Your task to perform on an android device: What's the weather going to be this weekend? Image 0: 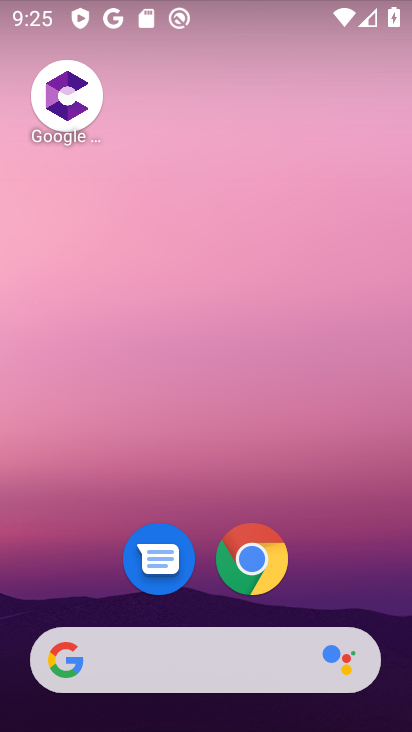
Step 0: drag from (358, 552) to (287, 56)
Your task to perform on an android device: What's the weather going to be this weekend? Image 1: 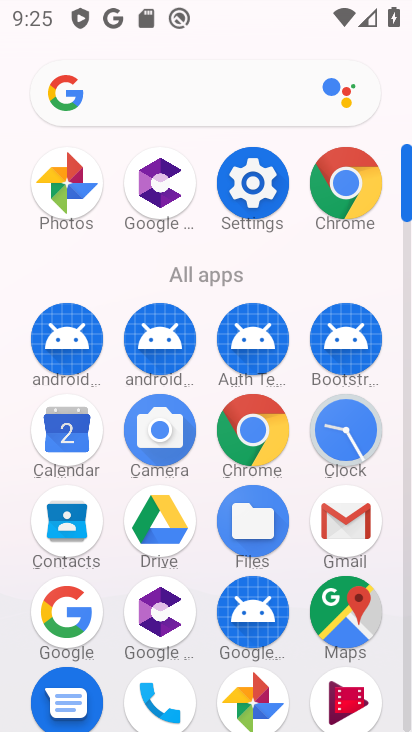
Step 1: drag from (312, 275) to (295, 59)
Your task to perform on an android device: What's the weather going to be this weekend? Image 2: 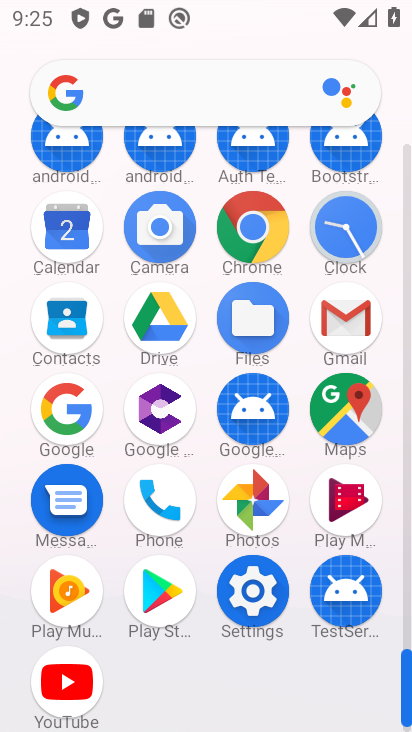
Step 2: click (59, 404)
Your task to perform on an android device: What's the weather going to be this weekend? Image 3: 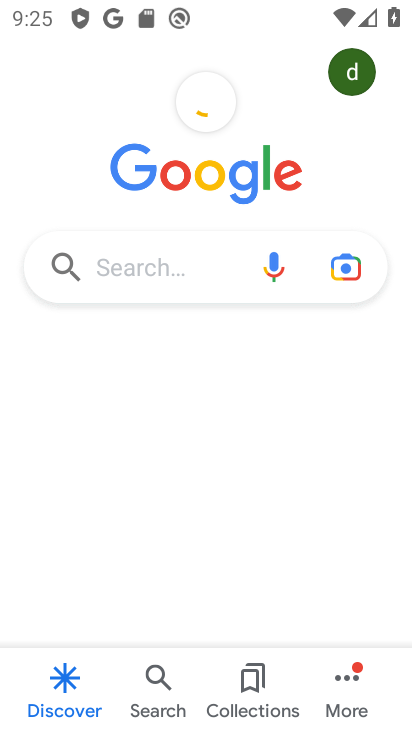
Step 3: click (184, 273)
Your task to perform on an android device: What's the weather going to be this weekend? Image 4: 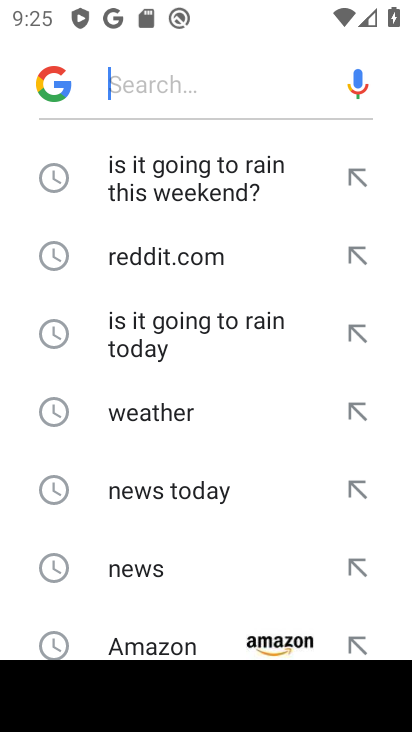
Step 4: type "What's the weather going to be this weekend?"
Your task to perform on an android device: What's the weather going to be this weekend? Image 5: 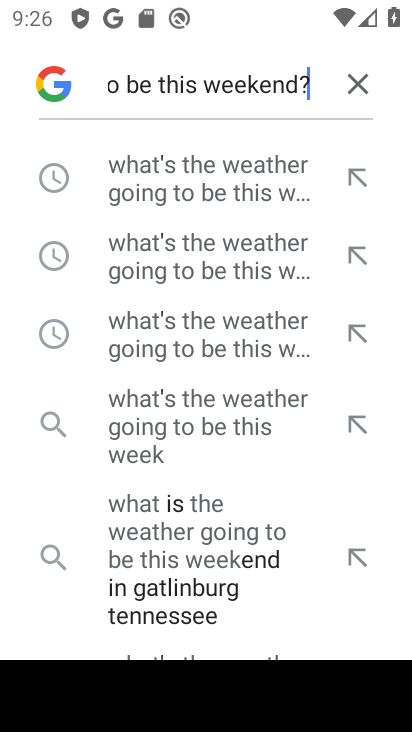
Step 5: type ""
Your task to perform on an android device: What's the weather going to be this weekend? Image 6: 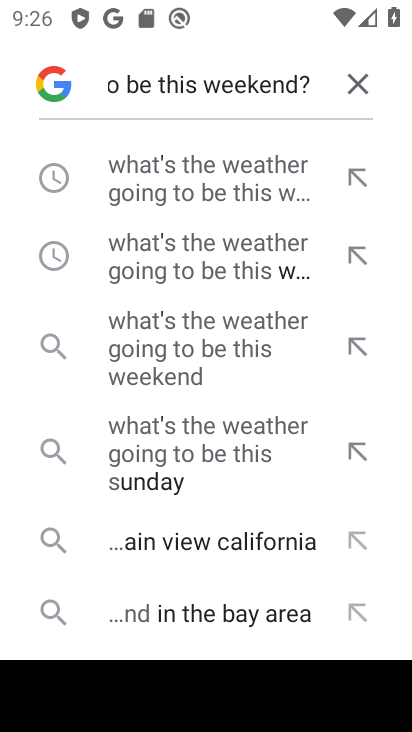
Step 6: click (243, 173)
Your task to perform on an android device: What's the weather going to be this weekend? Image 7: 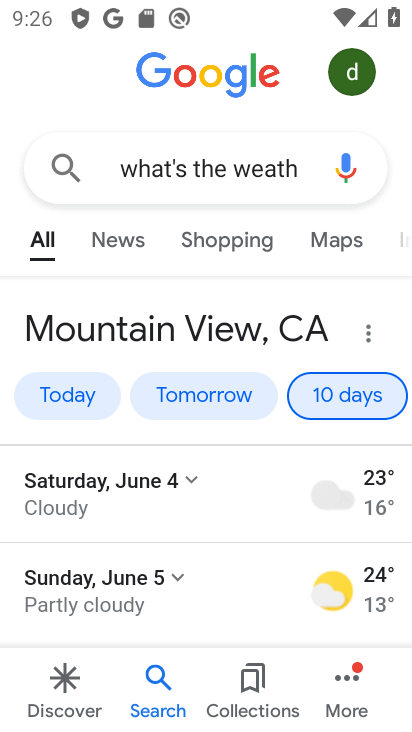
Step 7: task complete